Your task to perform on an android device: turn on wifi Image 0: 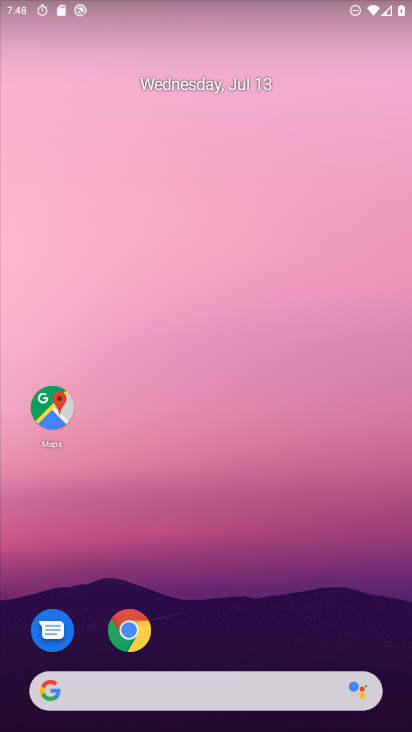
Step 0: drag from (393, 643) to (277, 55)
Your task to perform on an android device: turn on wifi Image 1: 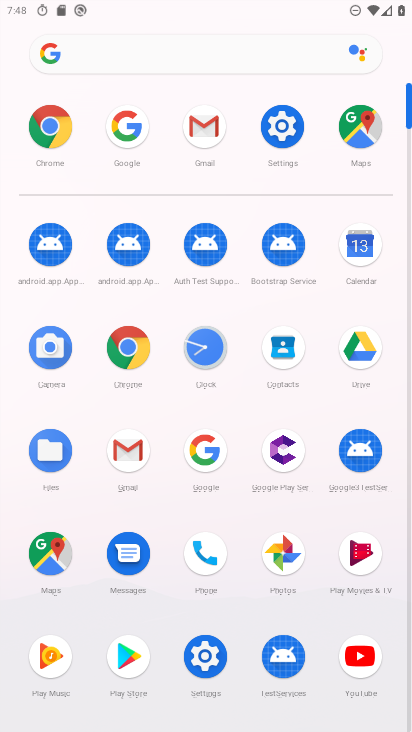
Step 1: click (282, 130)
Your task to perform on an android device: turn on wifi Image 2: 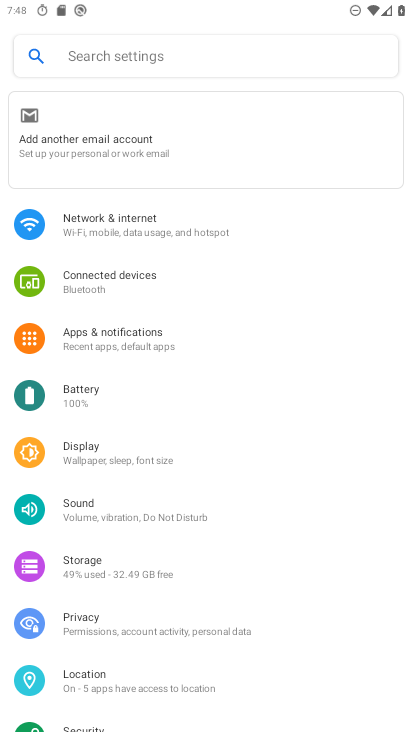
Step 2: click (93, 216)
Your task to perform on an android device: turn on wifi Image 3: 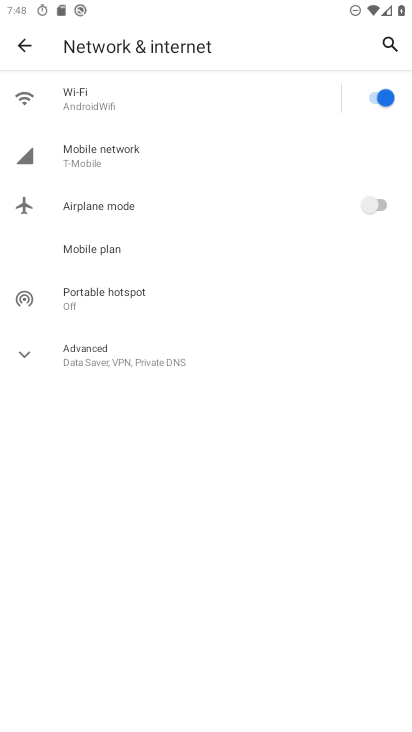
Step 3: task complete